Your task to perform on an android device: Go to Android settings Image 0: 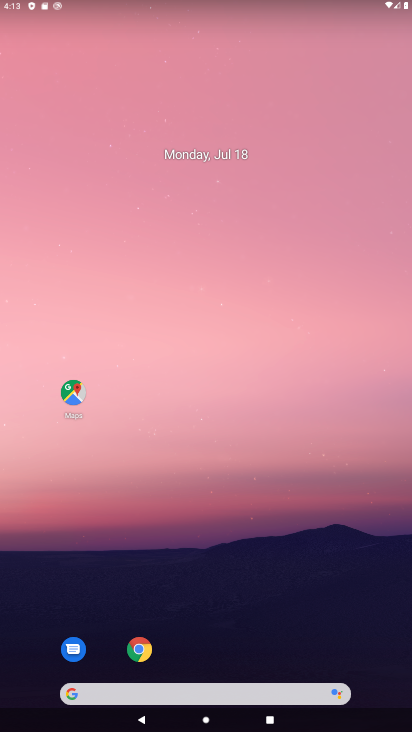
Step 0: drag from (242, 667) to (258, 268)
Your task to perform on an android device: Go to Android settings Image 1: 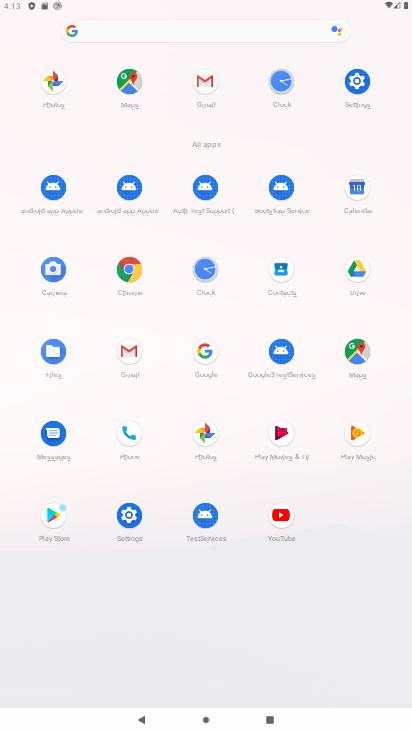
Step 1: click (130, 522)
Your task to perform on an android device: Go to Android settings Image 2: 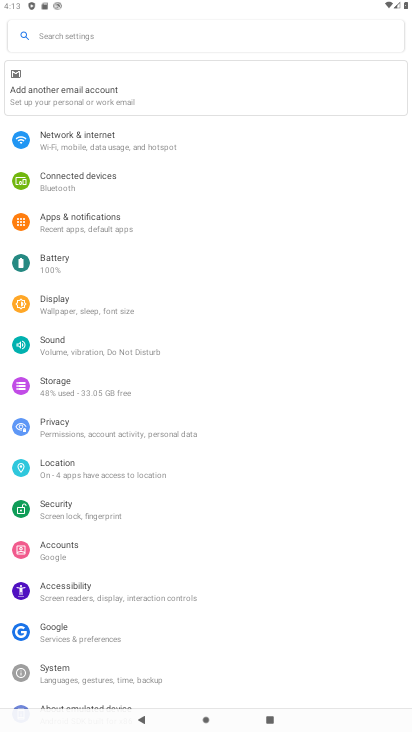
Step 2: drag from (91, 625) to (109, 249)
Your task to perform on an android device: Go to Android settings Image 3: 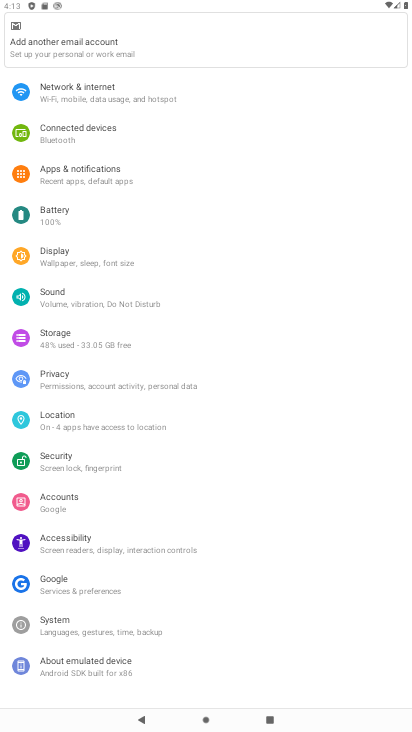
Step 3: drag from (85, 645) to (80, 380)
Your task to perform on an android device: Go to Android settings Image 4: 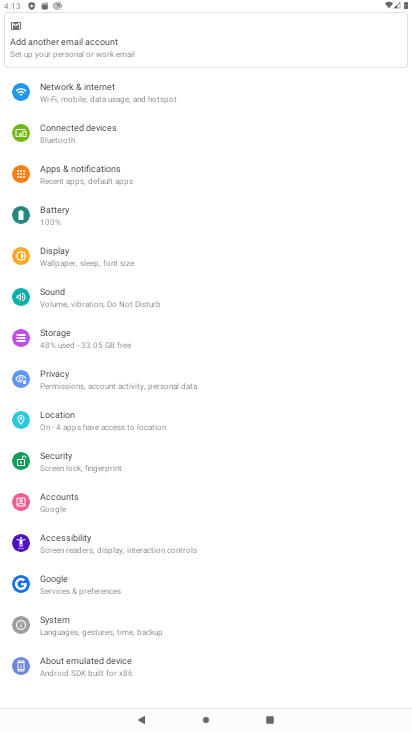
Step 4: click (99, 659)
Your task to perform on an android device: Go to Android settings Image 5: 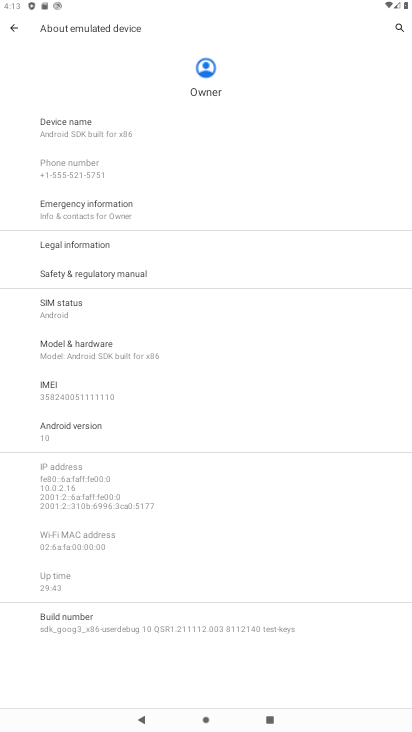
Step 5: click (99, 664)
Your task to perform on an android device: Go to Android settings Image 6: 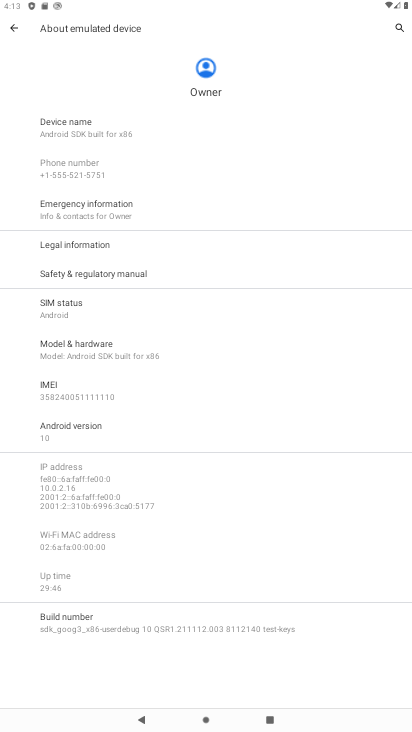
Step 6: click (69, 432)
Your task to perform on an android device: Go to Android settings Image 7: 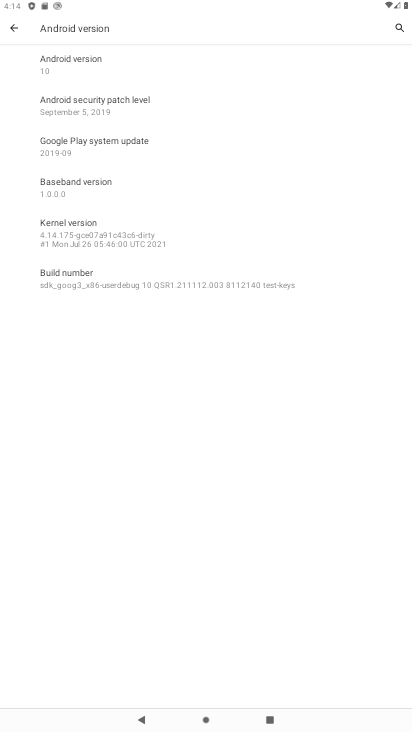
Step 7: task complete